Your task to perform on an android device: uninstall "Upside-Cash back on gas & food" Image 0: 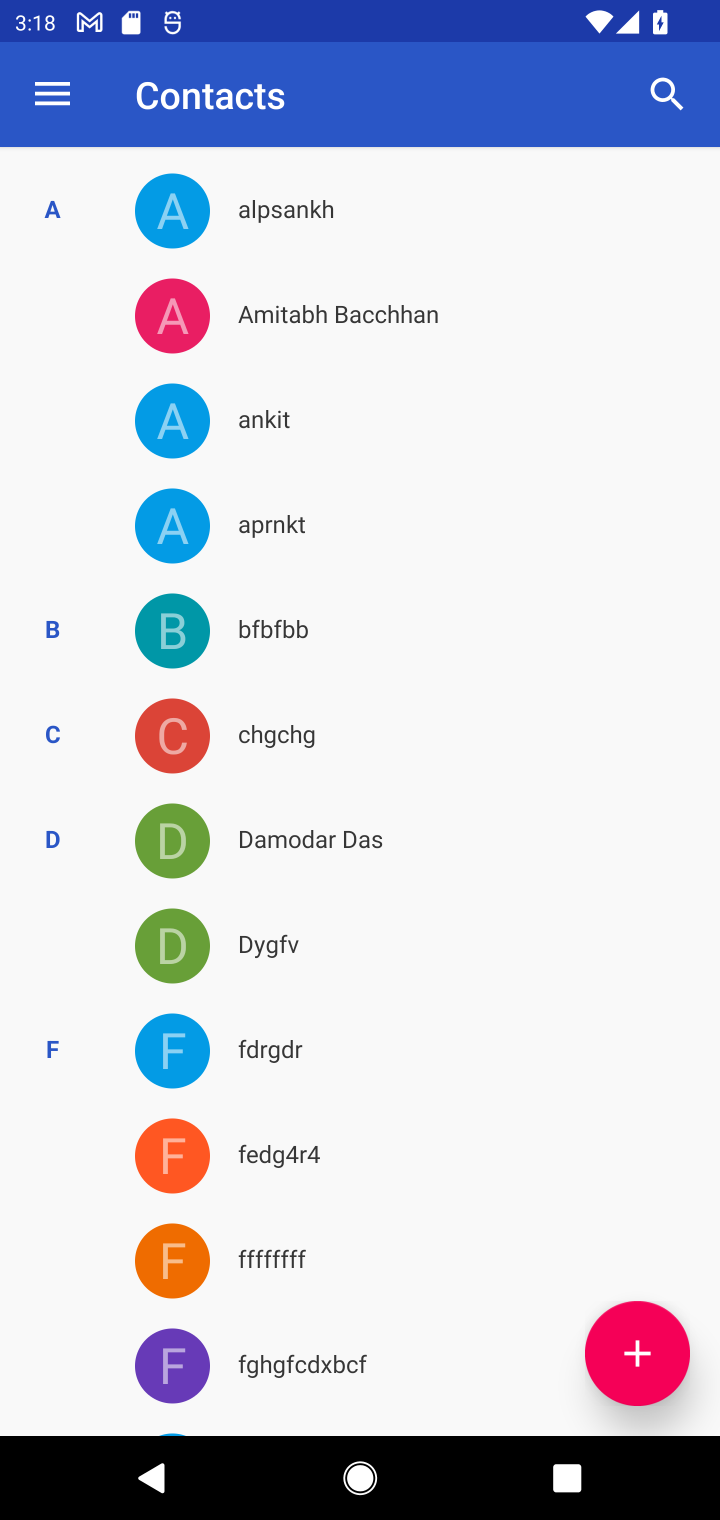
Step 0: press home button
Your task to perform on an android device: uninstall "Upside-Cash back on gas & food" Image 1: 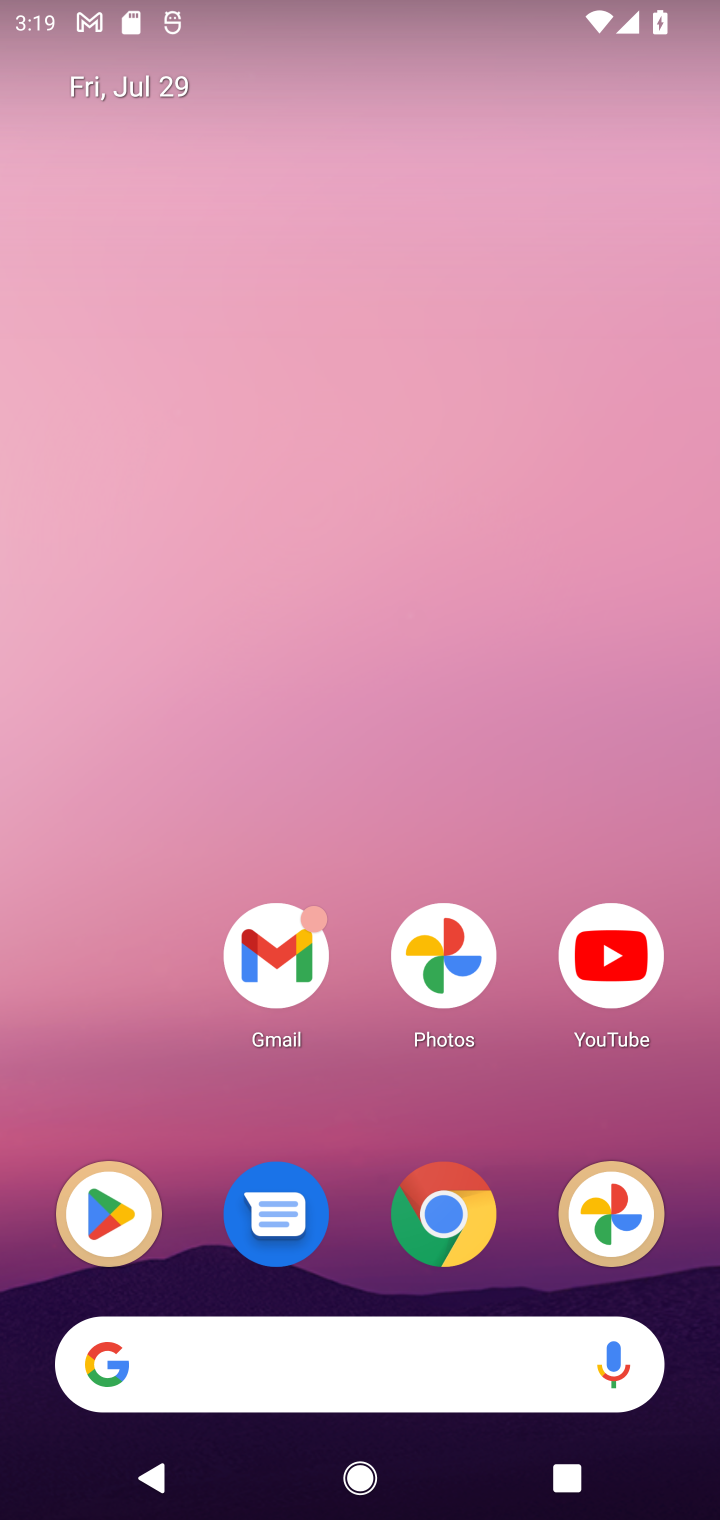
Step 1: click (115, 1181)
Your task to perform on an android device: uninstall "Upside-Cash back on gas & food" Image 2: 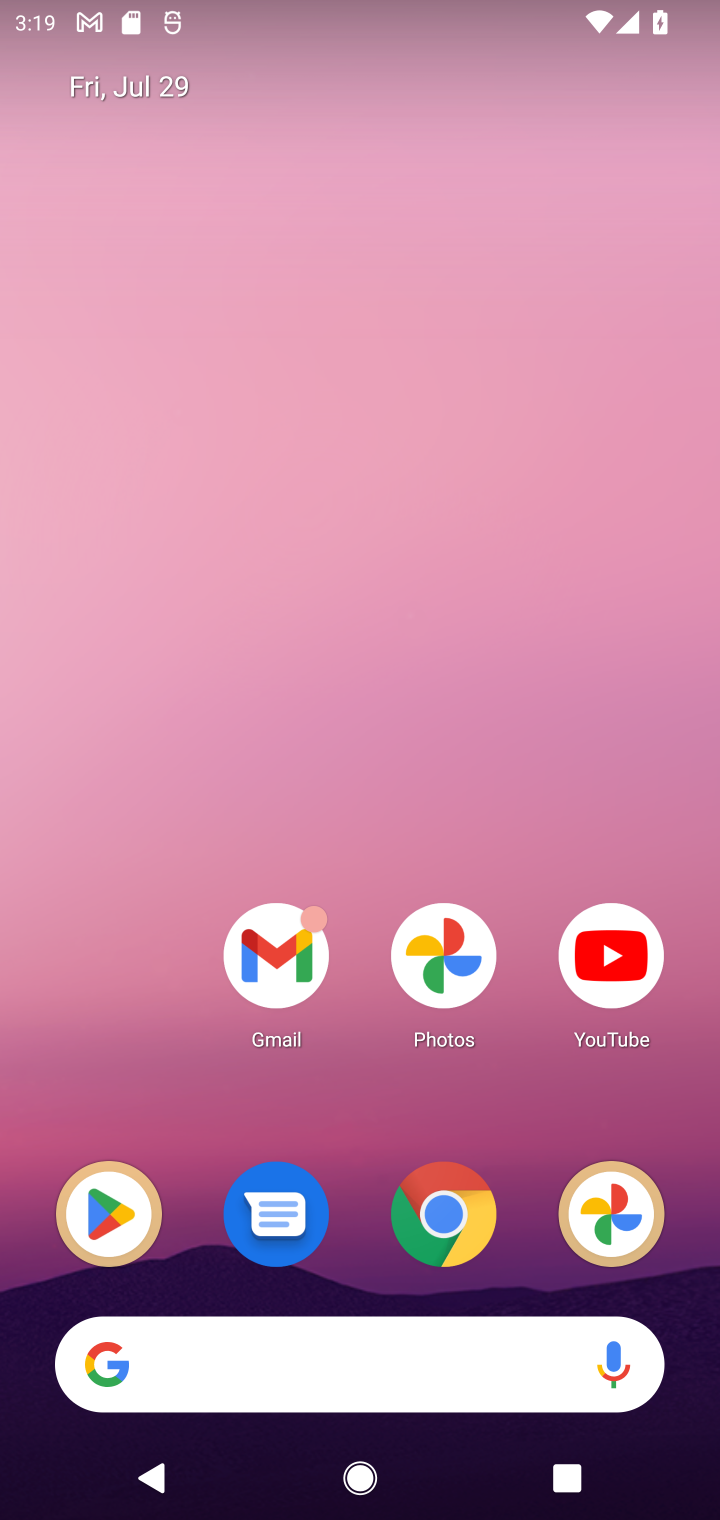
Step 2: click (135, 1197)
Your task to perform on an android device: uninstall "Upside-Cash back on gas & food" Image 3: 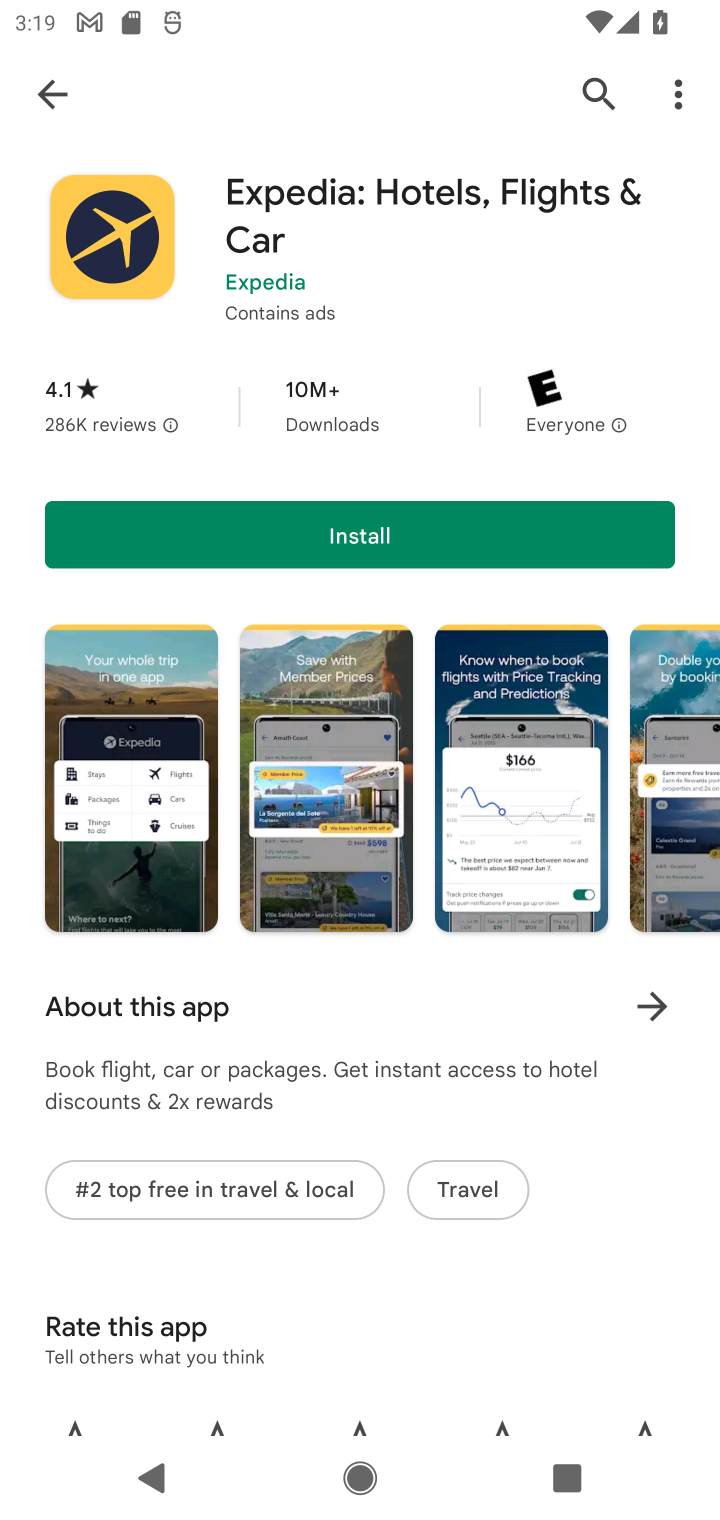
Step 3: click (622, 98)
Your task to perform on an android device: uninstall "Upside-Cash back on gas & food" Image 4: 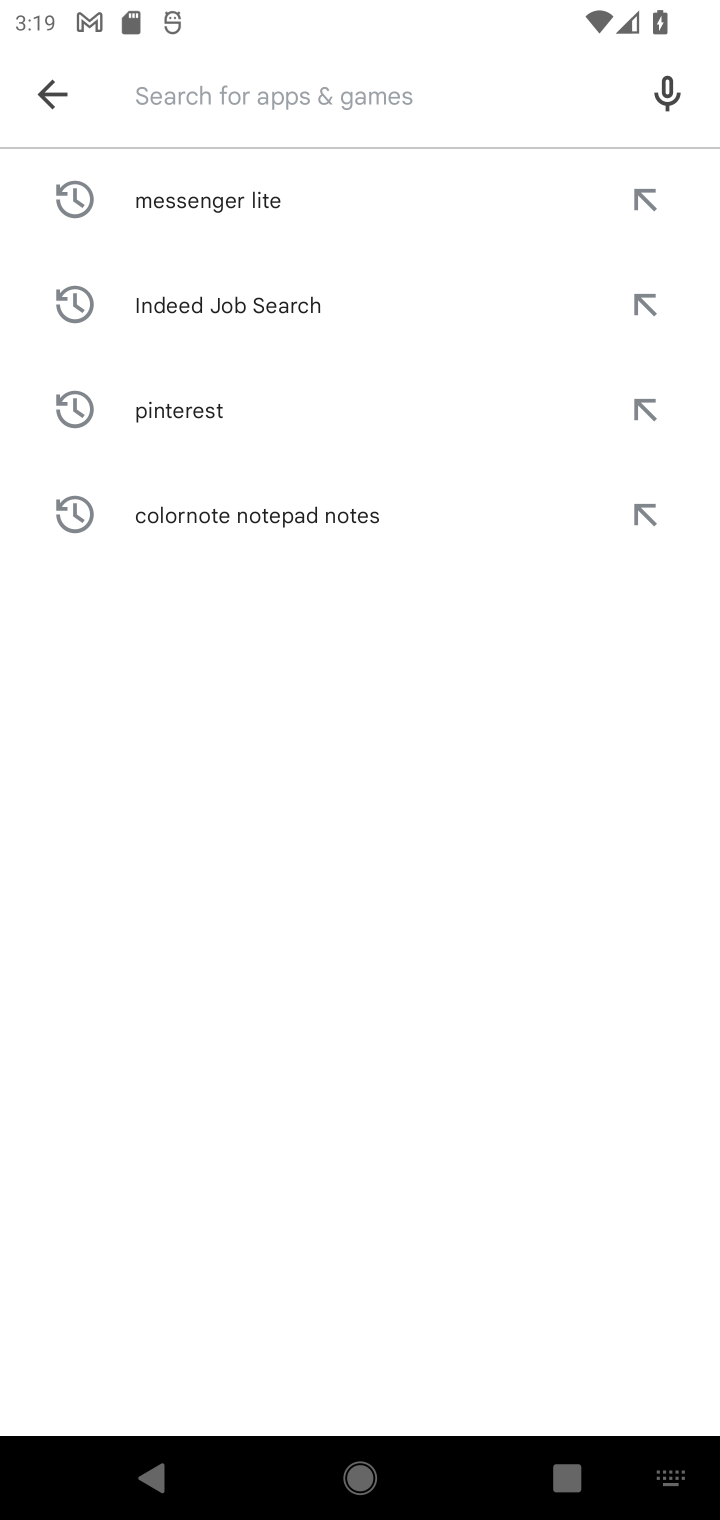
Step 4: type "Upside - Cash back on gas & food"
Your task to perform on an android device: uninstall "Upside-Cash back on gas & food" Image 5: 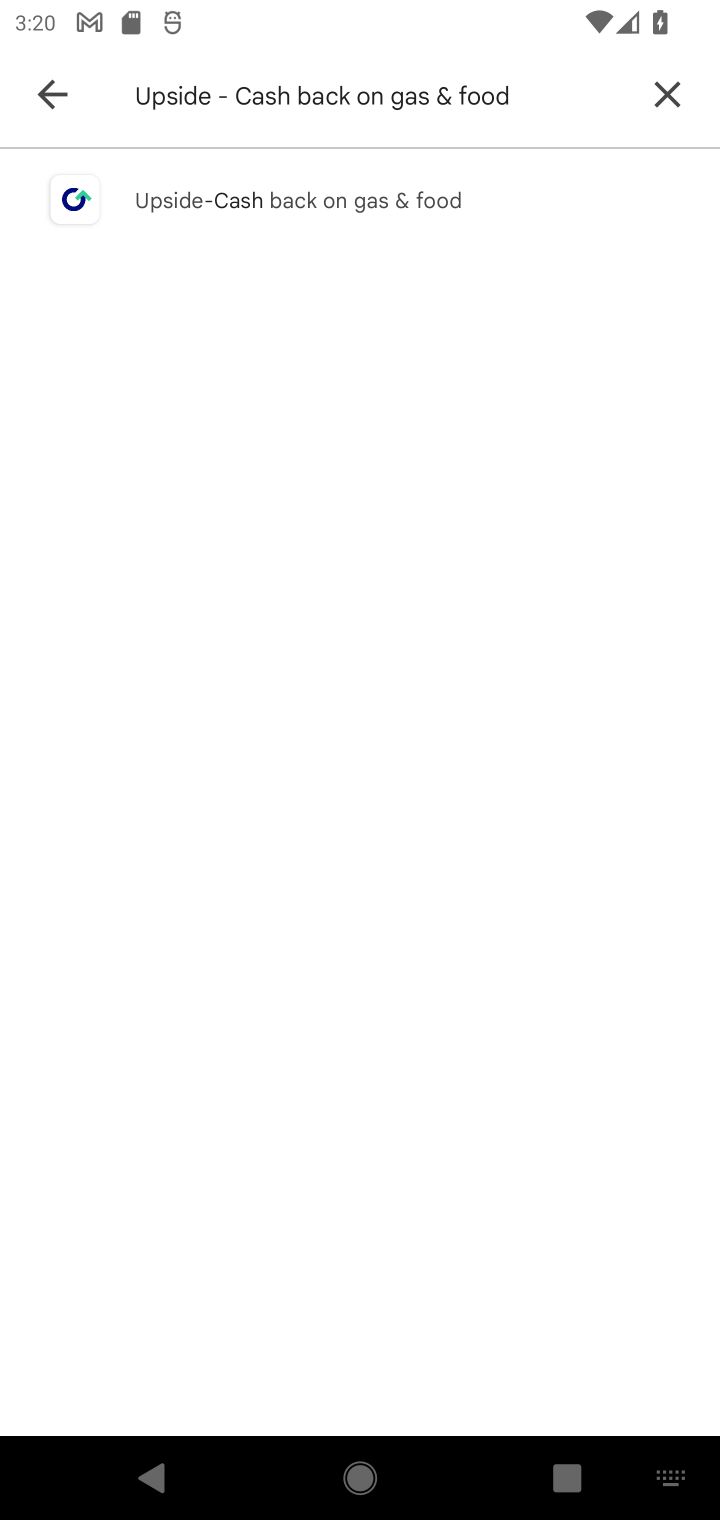
Step 5: click (497, 205)
Your task to perform on an android device: uninstall "Upside-Cash back on gas & food" Image 6: 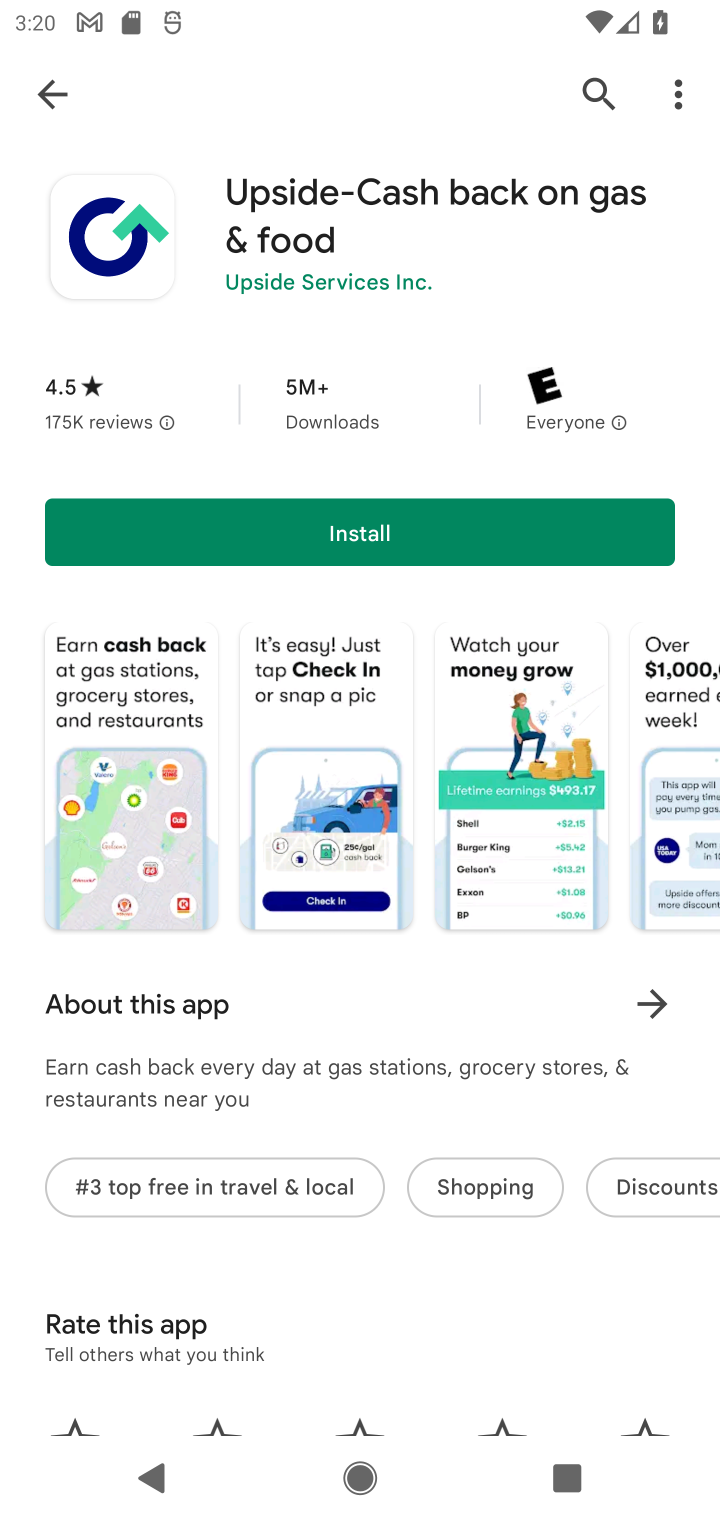
Step 6: task complete